Your task to perform on an android device: add a contact in the contacts app Image 0: 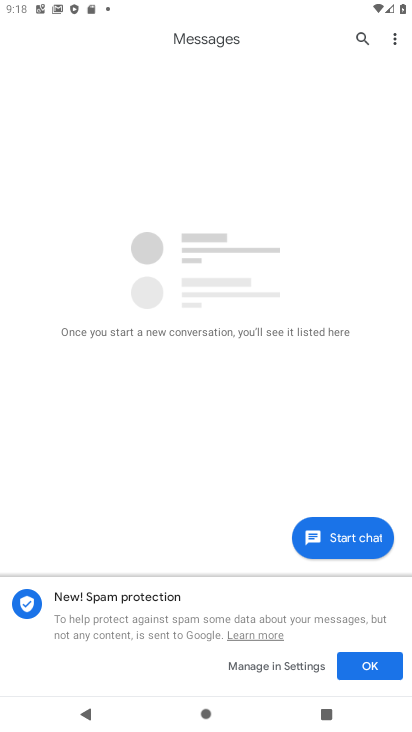
Step 0: press back button
Your task to perform on an android device: add a contact in the contacts app Image 1: 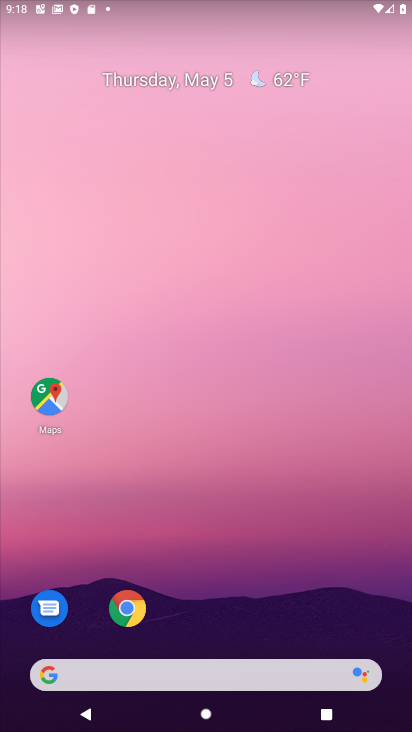
Step 1: drag from (336, 538) to (167, 1)
Your task to perform on an android device: add a contact in the contacts app Image 2: 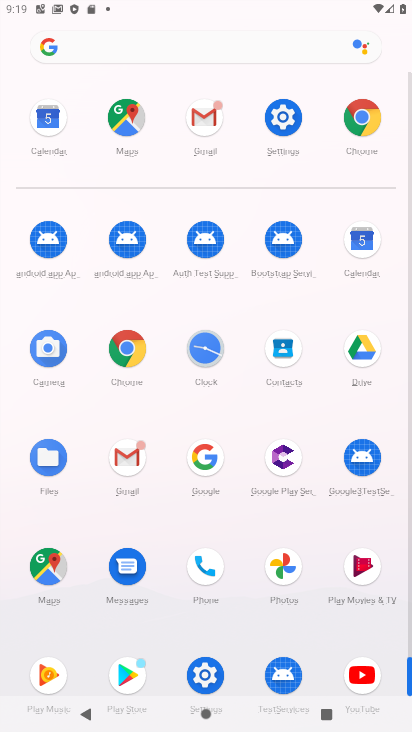
Step 2: drag from (11, 519) to (0, 247)
Your task to perform on an android device: add a contact in the contacts app Image 3: 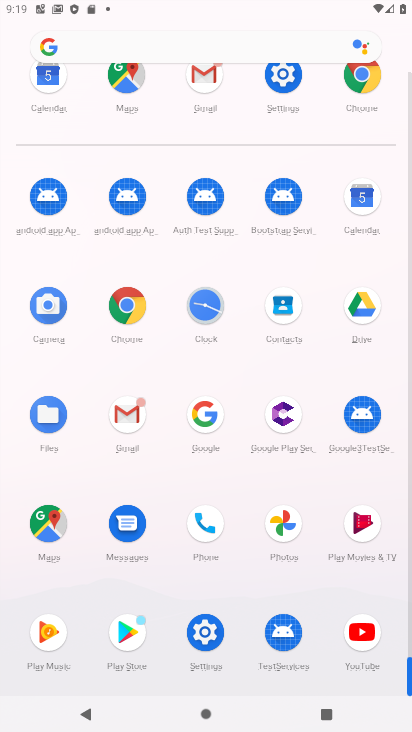
Step 3: drag from (15, 260) to (20, 390)
Your task to perform on an android device: add a contact in the contacts app Image 4: 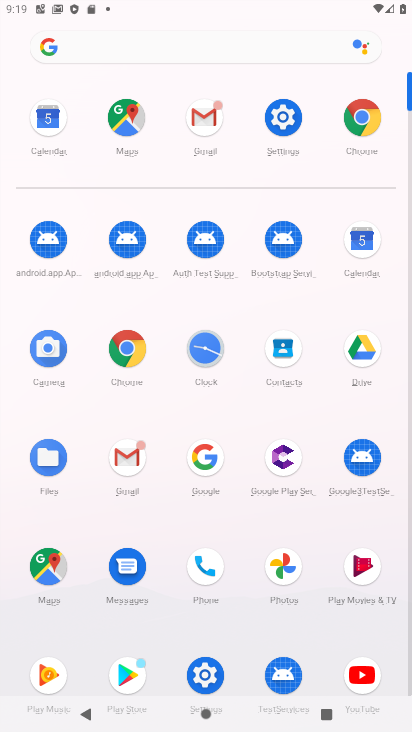
Step 4: click (278, 347)
Your task to perform on an android device: add a contact in the contacts app Image 5: 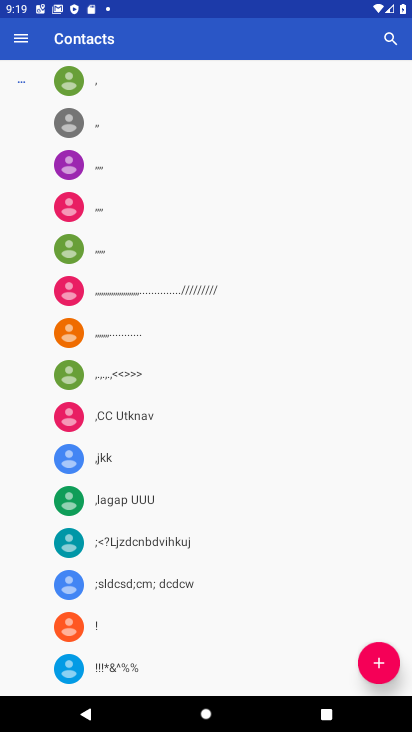
Step 5: click (382, 657)
Your task to perform on an android device: add a contact in the contacts app Image 6: 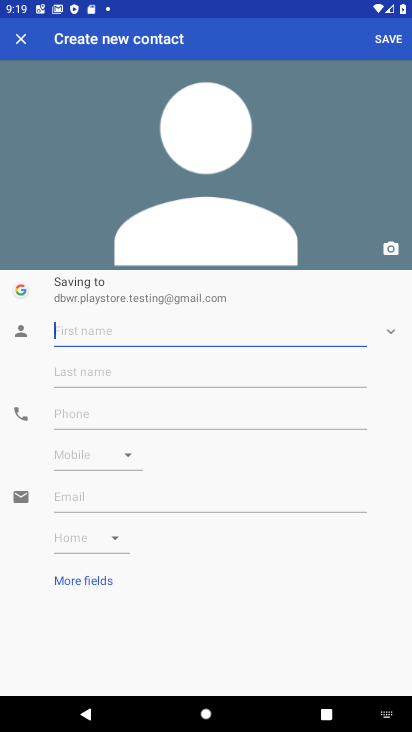
Step 6: type "DSrg"
Your task to perform on an android device: add a contact in the contacts app Image 7: 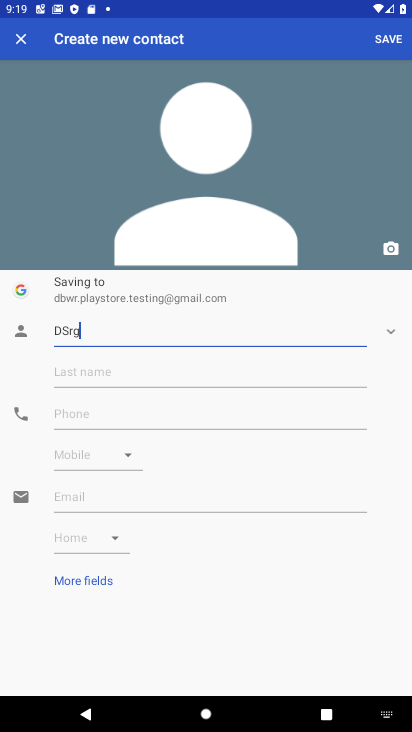
Step 7: type ""
Your task to perform on an android device: add a contact in the contacts app Image 8: 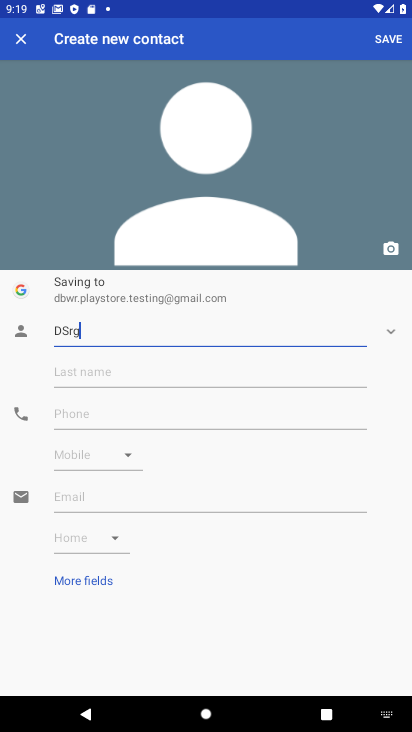
Step 8: click (86, 405)
Your task to perform on an android device: add a contact in the contacts app Image 9: 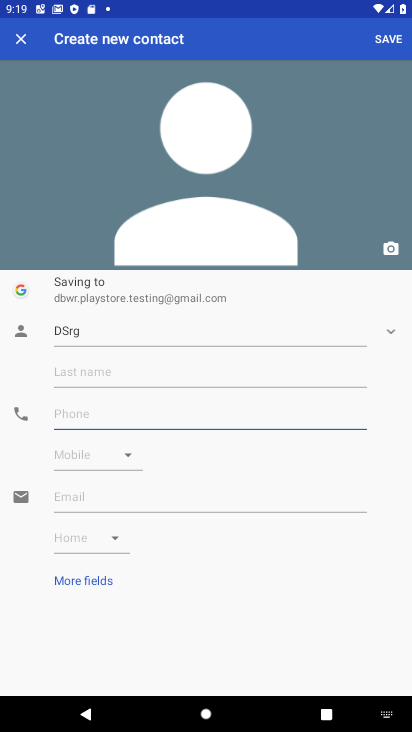
Step 9: type "576543"
Your task to perform on an android device: add a contact in the contacts app Image 10: 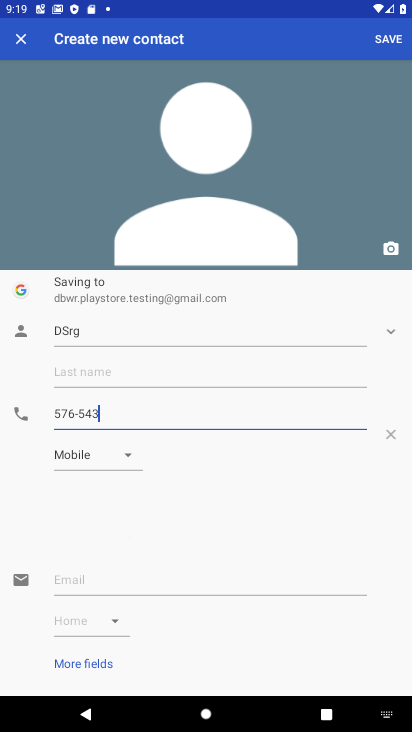
Step 10: type ""
Your task to perform on an android device: add a contact in the contacts app Image 11: 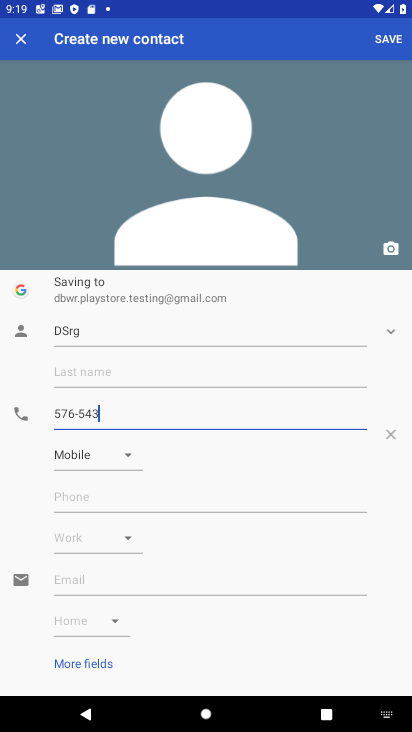
Step 11: click (391, 33)
Your task to perform on an android device: add a contact in the contacts app Image 12: 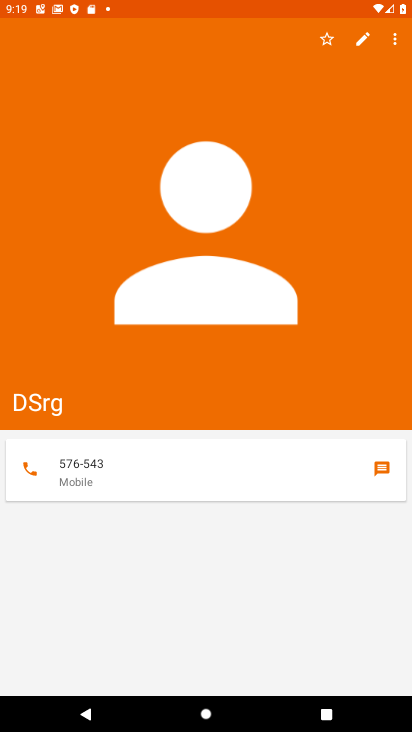
Step 12: task complete